Your task to perform on an android device: Go to Reddit.com Image 0: 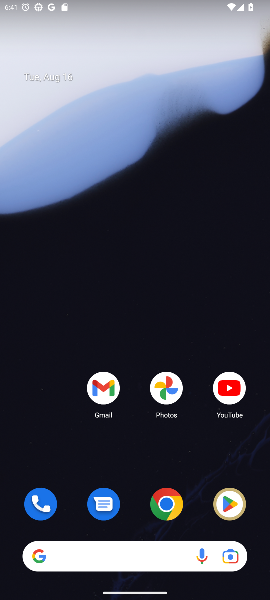
Step 0: click (75, 550)
Your task to perform on an android device: Go to Reddit.com Image 1: 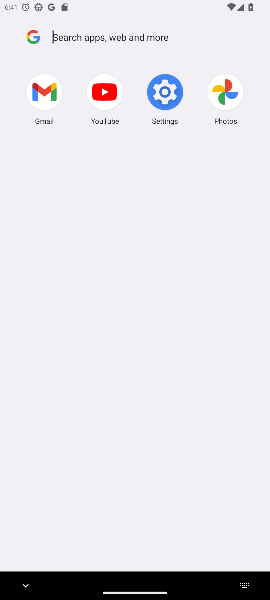
Step 1: type "Reddit.com"
Your task to perform on an android device: Go to Reddit.com Image 2: 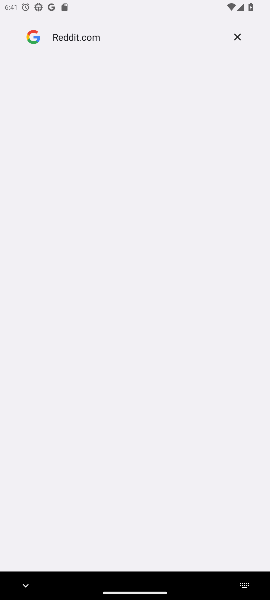
Step 2: type ""
Your task to perform on an android device: Go to Reddit.com Image 3: 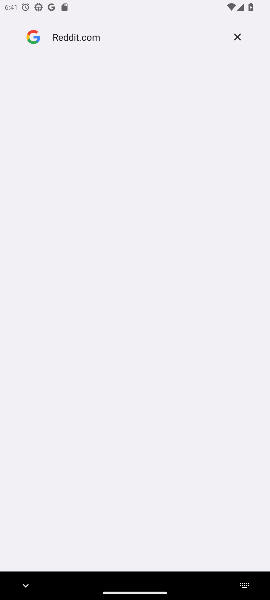
Step 3: type ""
Your task to perform on an android device: Go to Reddit.com Image 4: 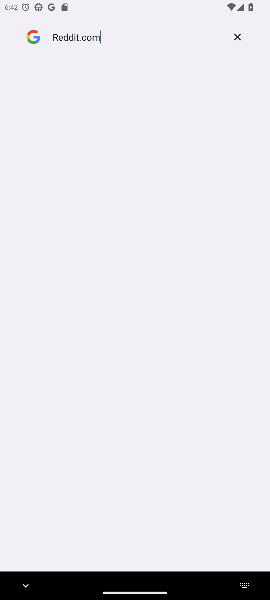
Step 4: task complete